Your task to perform on an android device: Open Google Image 0: 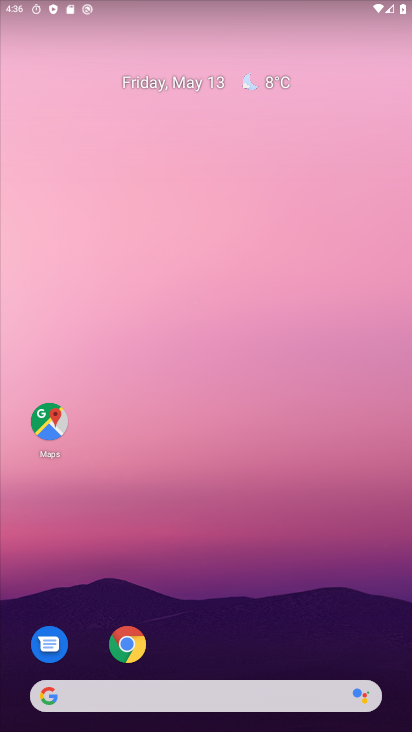
Step 0: drag from (229, 472) to (305, 213)
Your task to perform on an android device: Open Google Image 1: 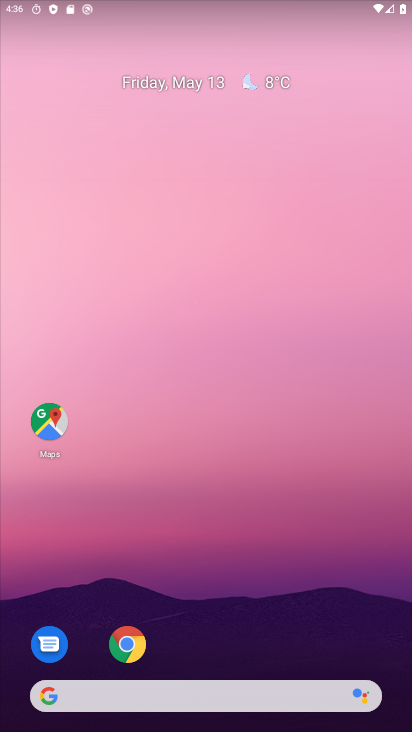
Step 1: drag from (213, 653) to (342, 195)
Your task to perform on an android device: Open Google Image 2: 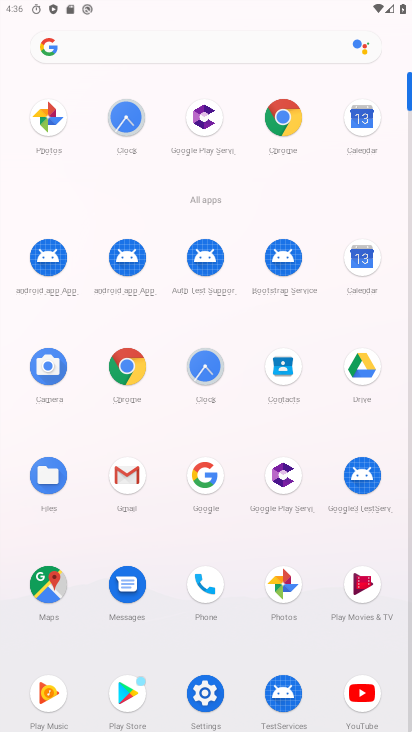
Step 2: drag from (166, 677) to (232, 393)
Your task to perform on an android device: Open Google Image 3: 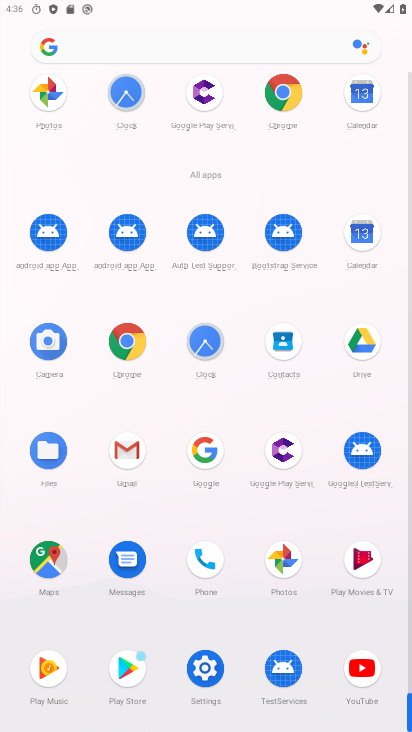
Step 3: click (196, 459)
Your task to perform on an android device: Open Google Image 4: 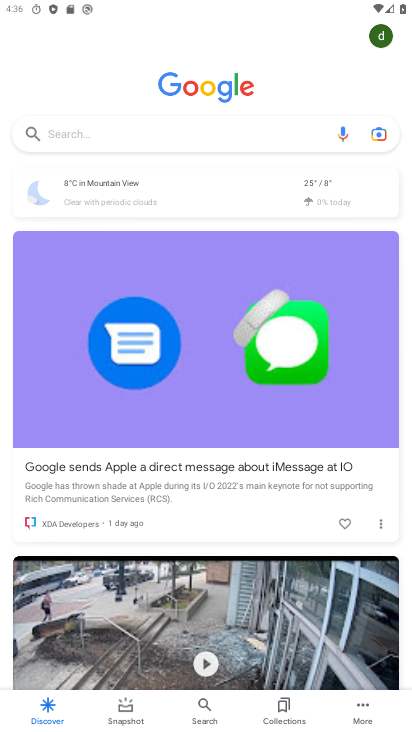
Step 4: task complete